Your task to perform on an android device: turn off sleep mode Image 0: 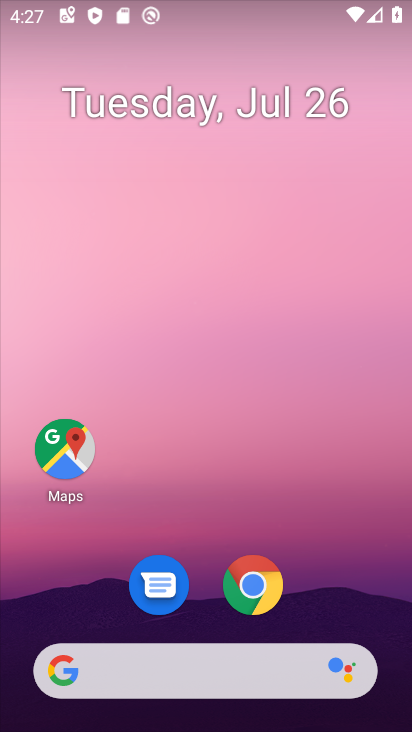
Step 0: drag from (317, 579) to (293, 28)
Your task to perform on an android device: turn off sleep mode Image 1: 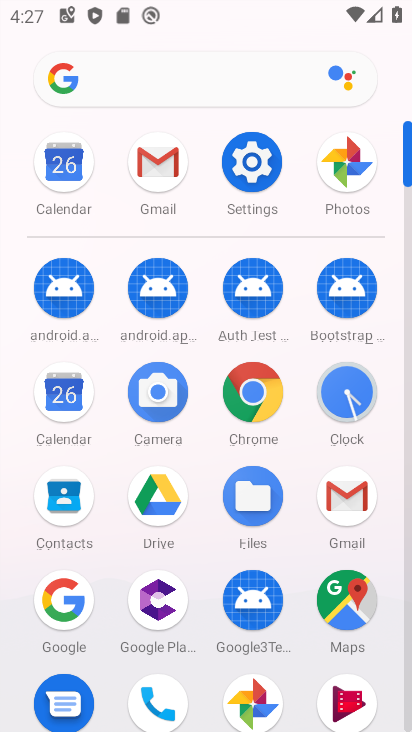
Step 1: click (255, 162)
Your task to perform on an android device: turn off sleep mode Image 2: 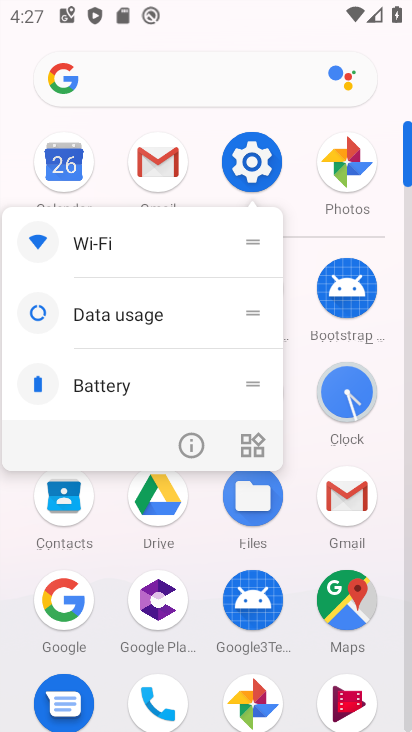
Step 2: click (255, 162)
Your task to perform on an android device: turn off sleep mode Image 3: 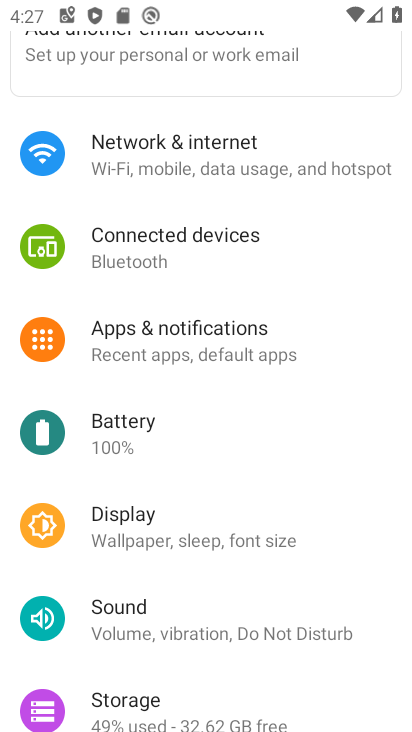
Step 3: click (174, 530)
Your task to perform on an android device: turn off sleep mode Image 4: 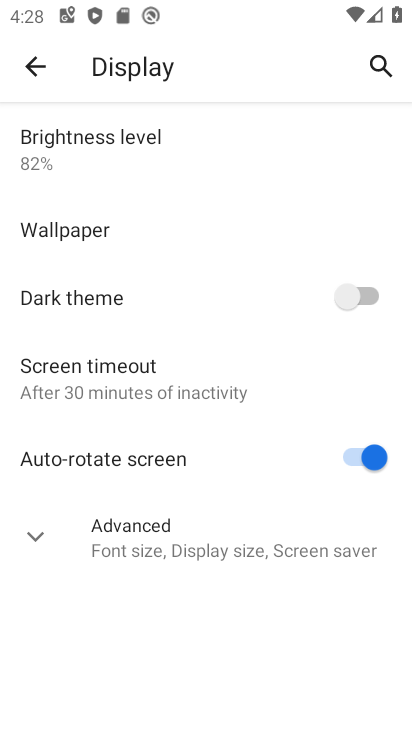
Step 4: click (33, 525)
Your task to perform on an android device: turn off sleep mode Image 5: 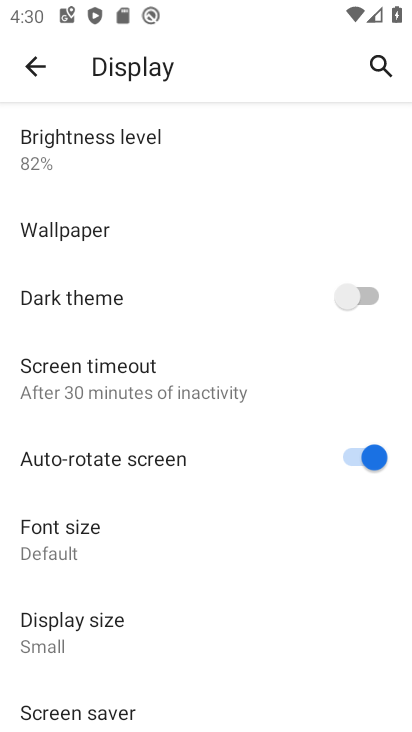
Step 5: task complete